Your task to perform on an android device: change notification settings in the gmail app Image 0: 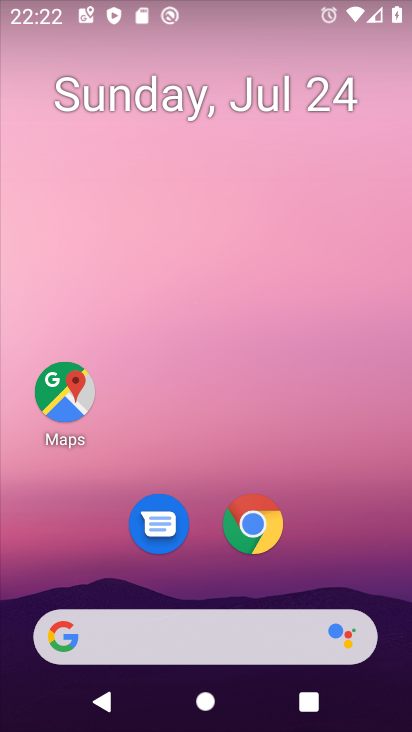
Step 0: drag from (162, 621) to (283, 96)
Your task to perform on an android device: change notification settings in the gmail app Image 1: 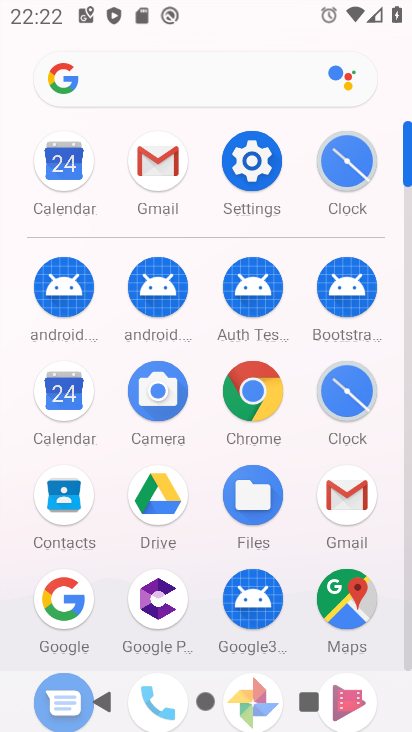
Step 1: click (339, 502)
Your task to perform on an android device: change notification settings in the gmail app Image 2: 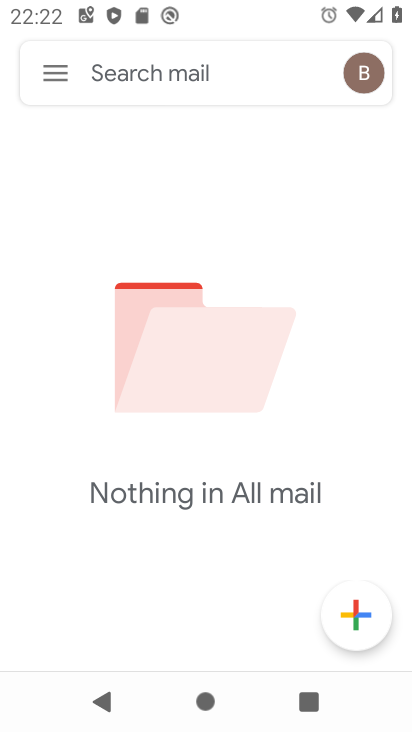
Step 2: click (58, 72)
Your task to perform on an android device: change notification settings in the gmail app Image 3: 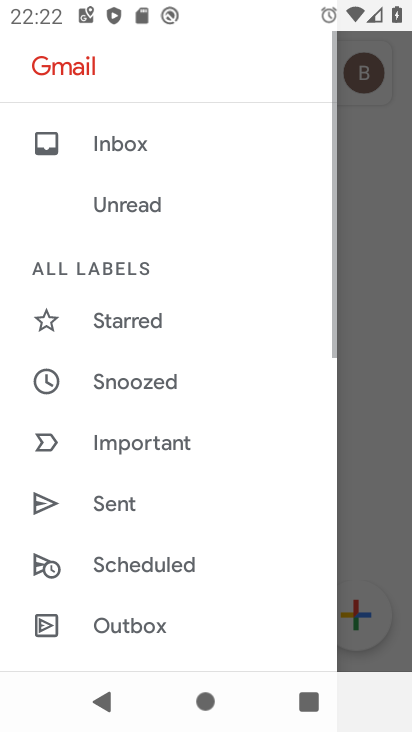
Step 3: drag from (229, 595) to (297, 33)
Your task to perform on an android device: change notification settings in the gmail app Image 4: 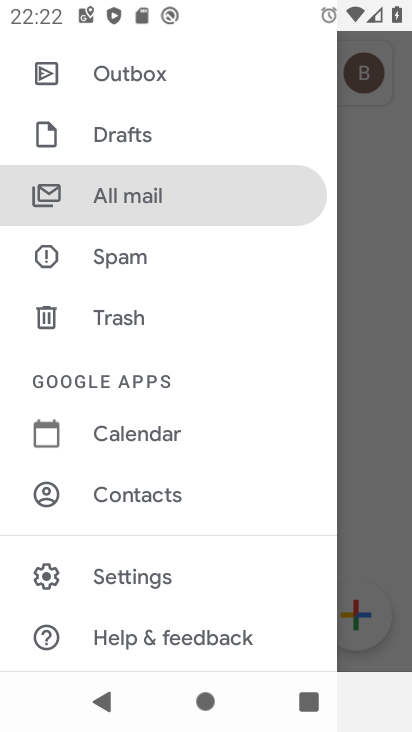
Step 4: click (143, 574)
Your task to perform on an android device: change notification settings in the gmail app Image 5: 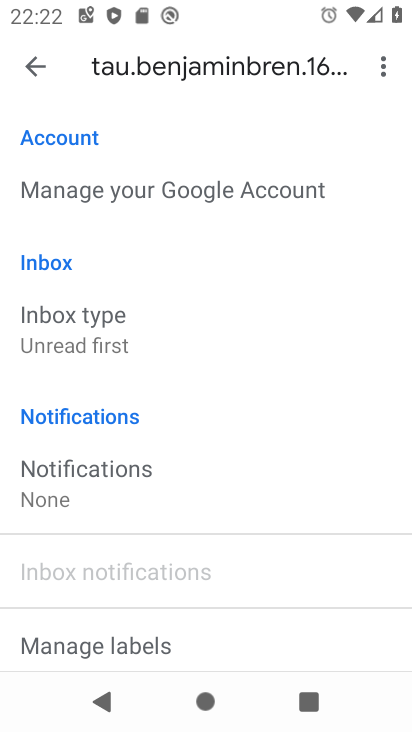
Step 5: click (89, 478)
Your task to perform on an android device: change notification settings in the gmail app Image 6: 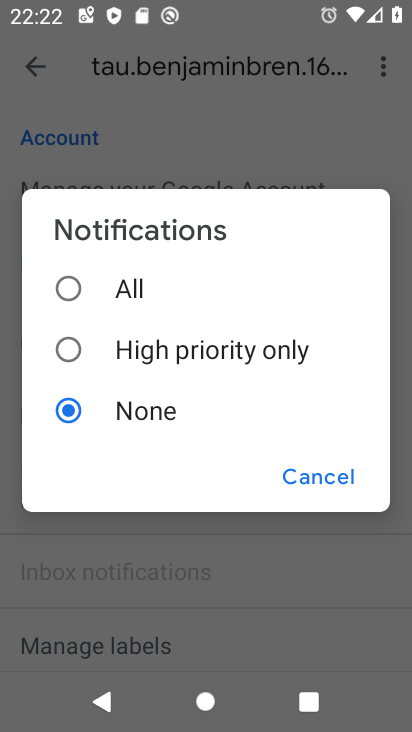
Step 6: click (75, 288)
Your task to perform on an android device: change notification settings in the gmail app Image 7: 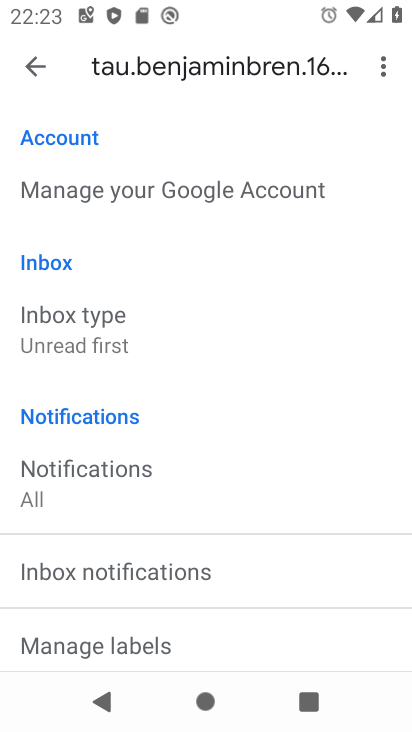
Step 7: task complete